Your task to perform on an android device: turn on bluetooth scan Image 0: 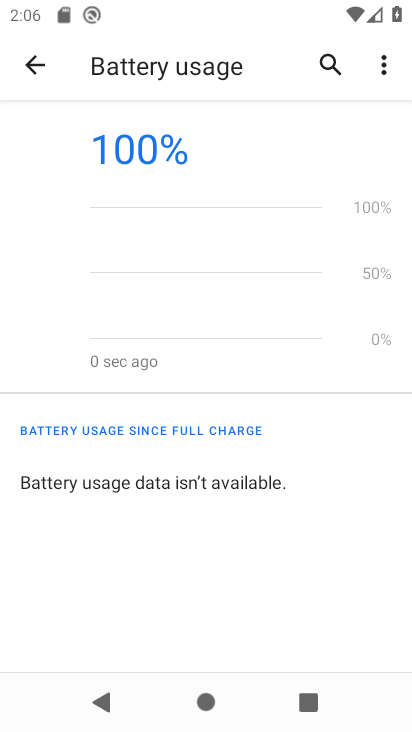
Step 0: press home button
Your task to perform on an android device: turn on bluetooth scan Image 1: 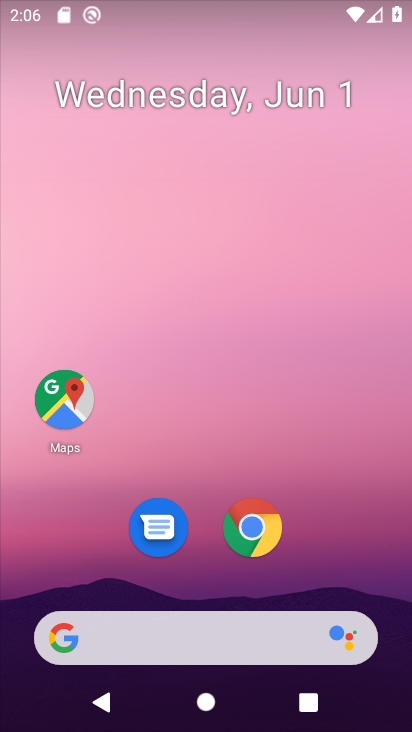
Step 1: drag from (301, 515) to (263, 11)
Your task to perform on an android device: turn on bluetooth scan Image 2: 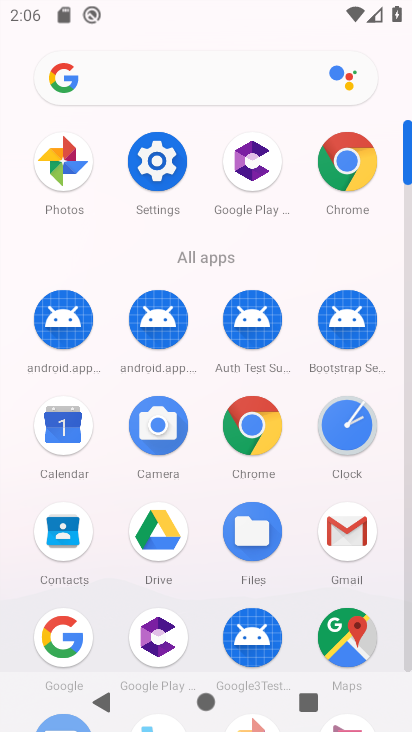
Step 2: click (164, 180)
Your task to perform on an android device: turn on bluetooth scan Image 3: 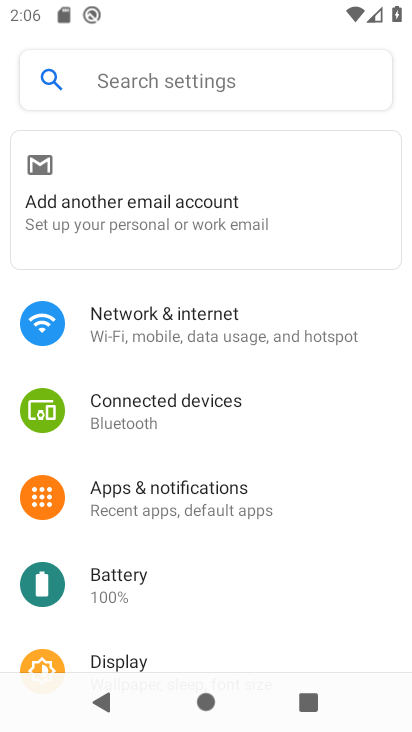
Step 3: drag from (204, 598) to (254, 308)
Your task to perform on an android device: turn on bluetooth scan Image 4: 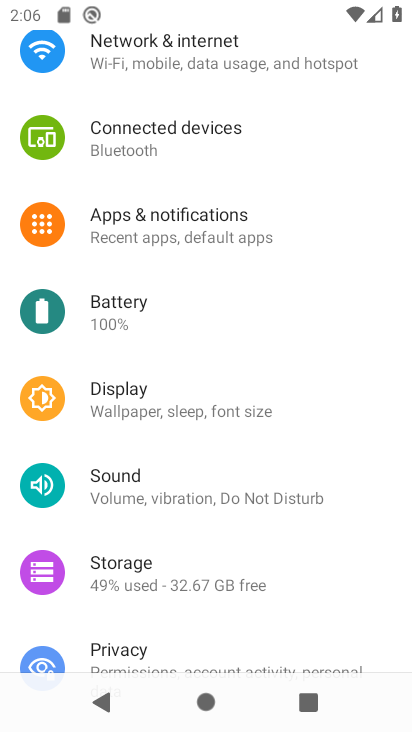
Step 4: drag from (141, 628) to (142, 388)
Your task to perform on an android device: turn on bluetooth scan Image 5: 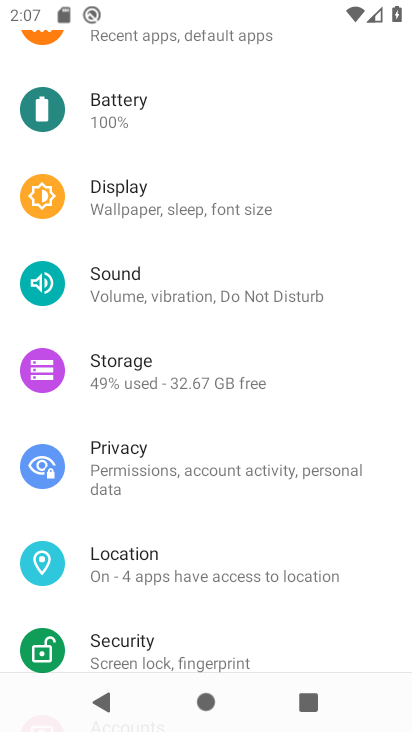
Step 5: click (158, 575)
Your task to perform on an android device: turn on bluetooth scan Image 6: 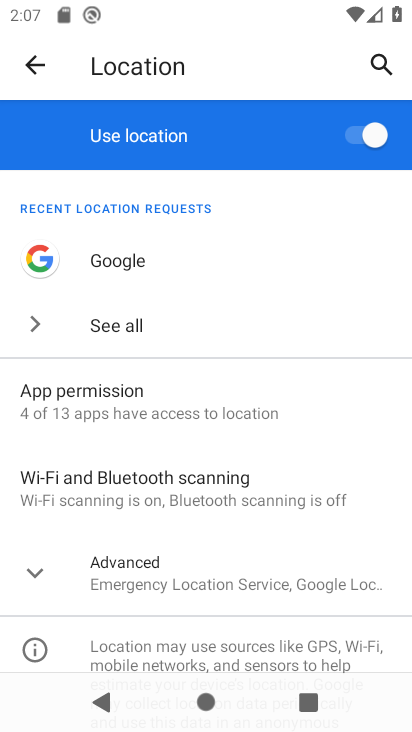
Step 6: click (164, 486)
Your task to perform on an android device: turn on bluetooth scan Image 7: 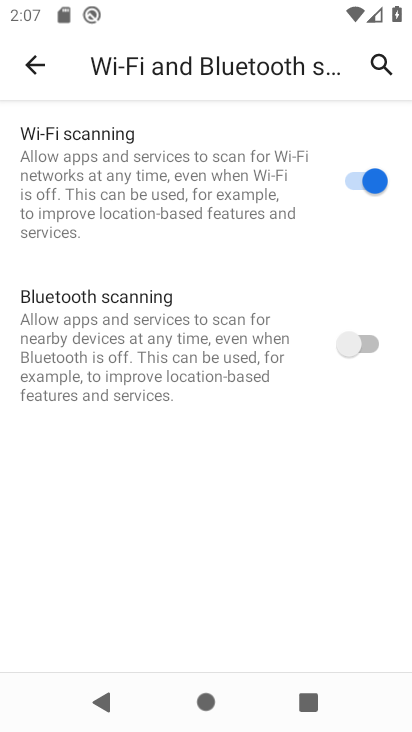
Step 7: click (325, 362)
Your task to perform on an android device: turn on bluetooth scan Image 8: 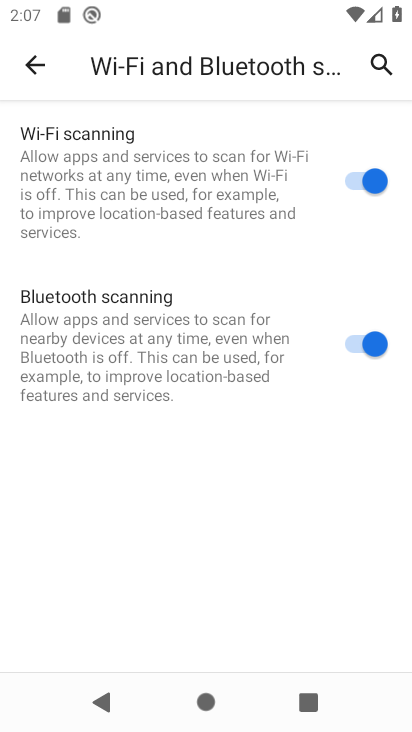
Step 8: task complete